Your task to perform on an android device: delete the emails in spam in the gmail app Image 0: 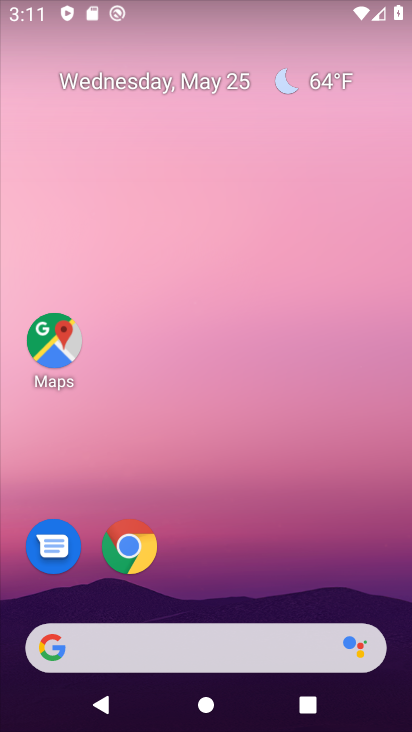
Step 0: drag from (193, 578) to (117, 137)
Your task to perform on an android device: delete the emails in spam in the gmail app Image 1: 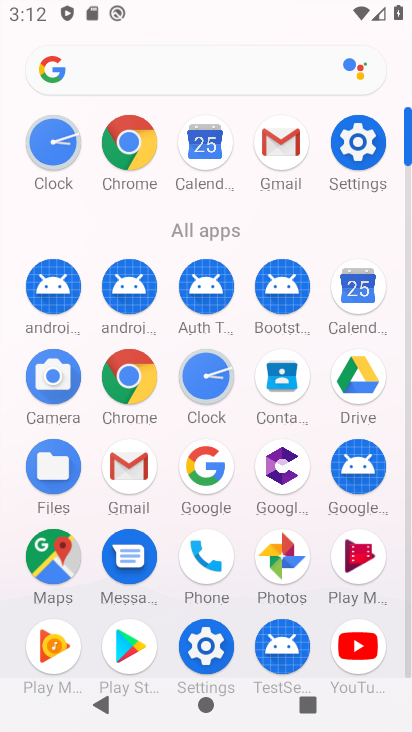
Step 1: click (131, 477)
Your task to perform on an android device: delete the emails in spam in the gmail app Image 2: 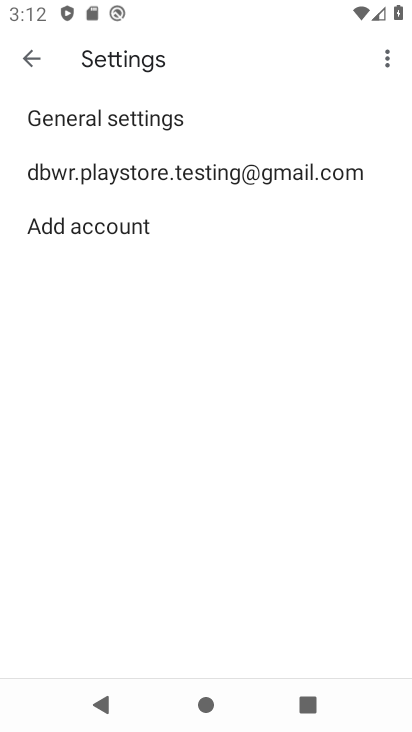
Step 2: click (29, 55)
Your task to perform on an android device: delete the emails in spam in the gmail app Image 3: 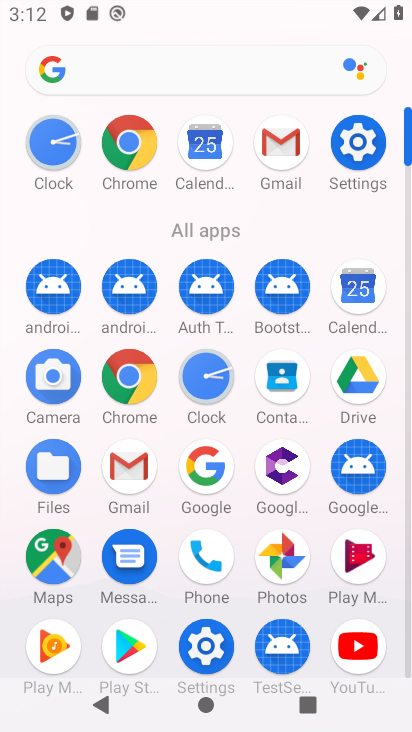
Step 3: click (287, 144)
Your task to perform on an android device: delete the emails in spam in the gmail app Image 4: 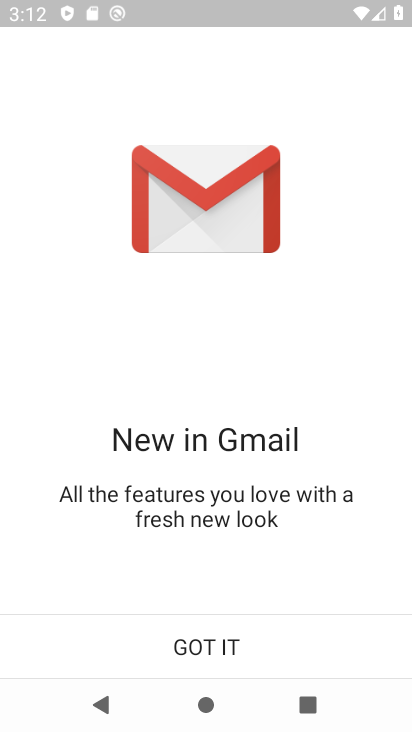
Step 4: click (200, 648)
Your task to perform on an android device: delete the emails in spam in the gmail app Image 5: 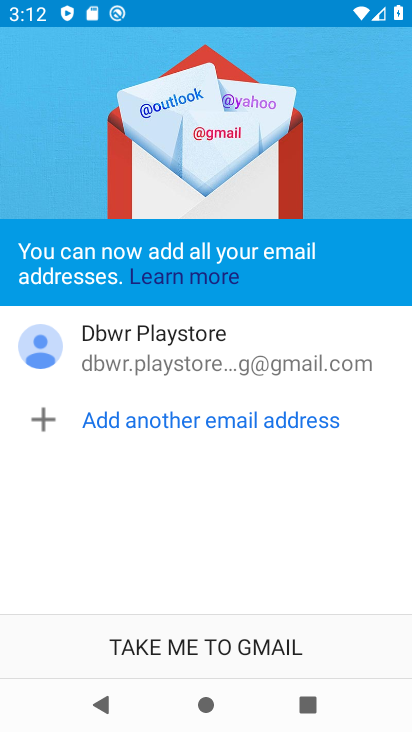
Step 5: click (200, 648)
Your task to perform on an android device: delete the emails in spam in the gmail app Image 6: 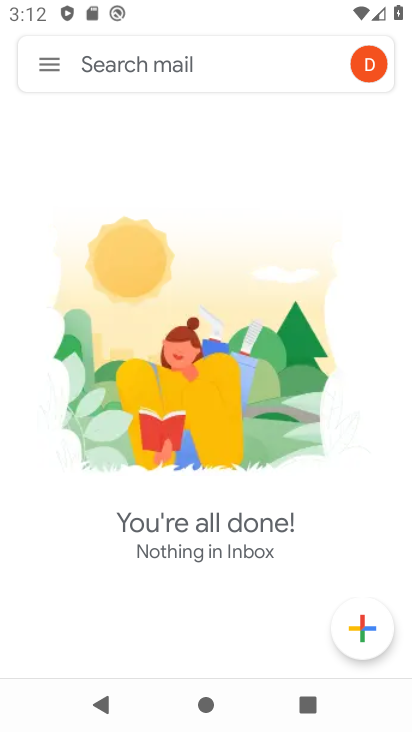
Step 6: click (55, 57)
Your task to perform on an android device: delete the emails in spam in the gmail app Image 7: 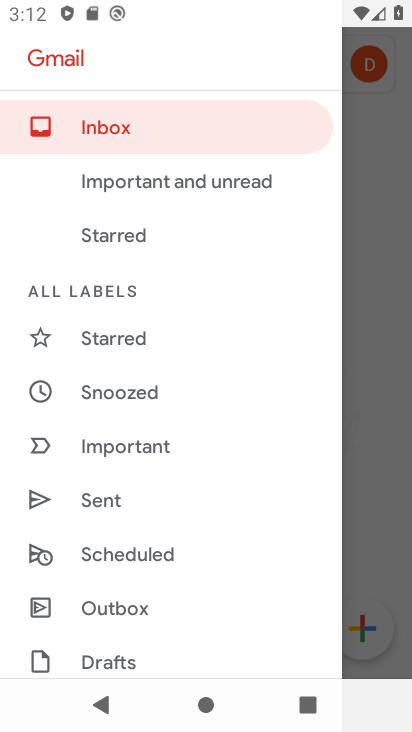
Step 7: drag from (170, 655) to (174, 299)
Your task to perform on an android device: delete the emails in spam in the gmail app Image 8: 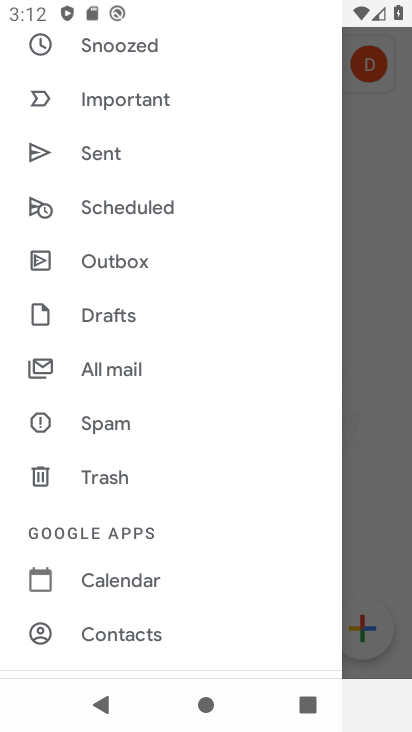
Step 8: click (105, 422)
Your task to perform on an android device: delete the emails in spam in the gmail app Image 9: 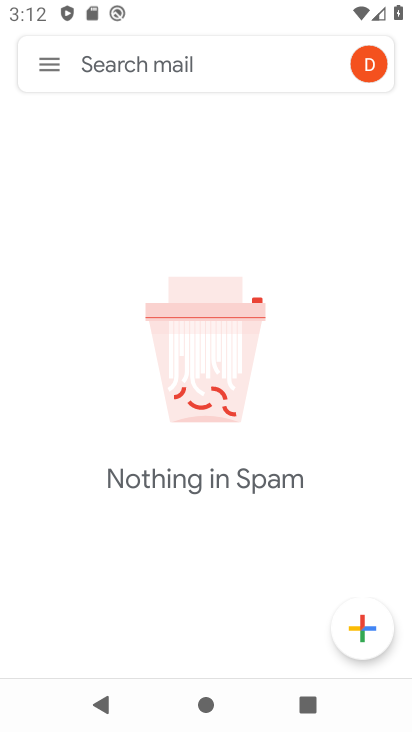
Step 9: click (162, 481)
Your task to perform on an android device: delete the emails in spam in the gmail app Image 10: 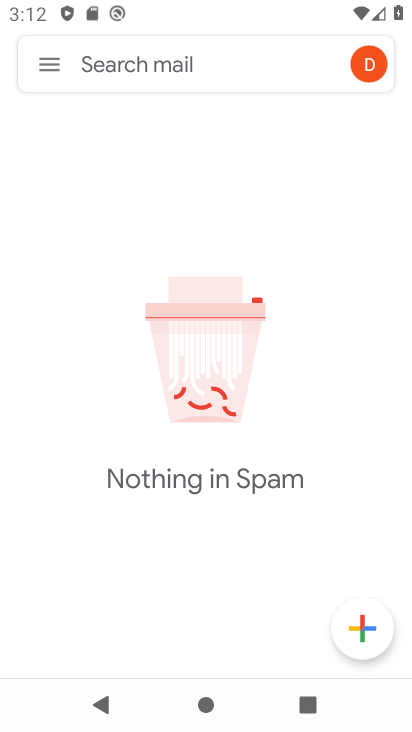
Step 10: task complete